Your task to perform on an android device: all mails in gmail Image 0: 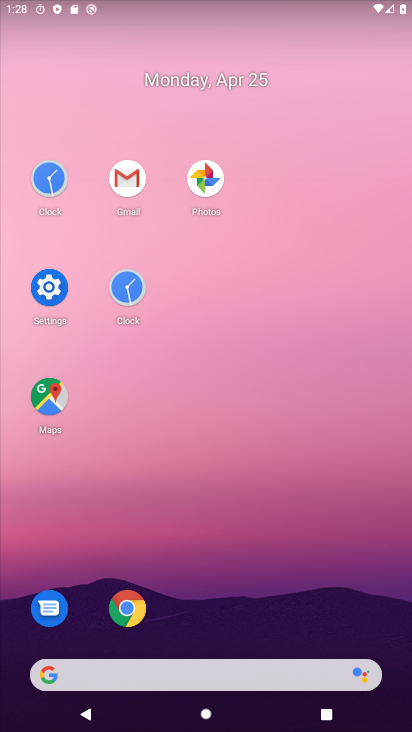
Step 0: click (123, 180)
Your task to perform on an android device: all mails in gmail Image 1: 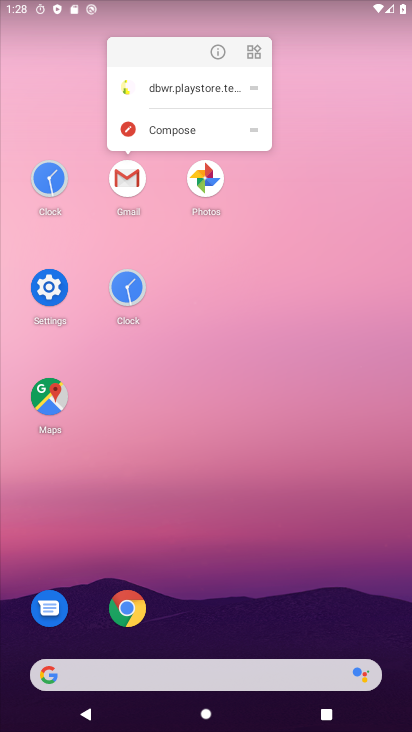
Step 1: click (123, 180)
Your task to perform on an android device: all mails in gmail Image 2: 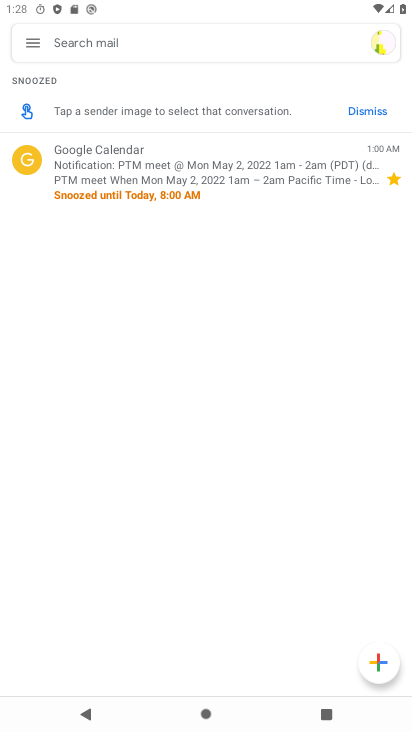
Step 2: click (33, 38)
Your task to perform on an android device: all mails in gmail Image 3: 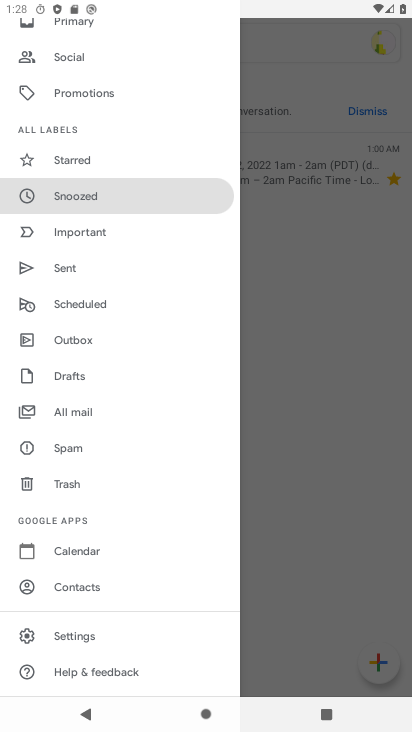
Step 3: click (129, 403)
Your task to perform on an android device: all mails in gmail Image 4: 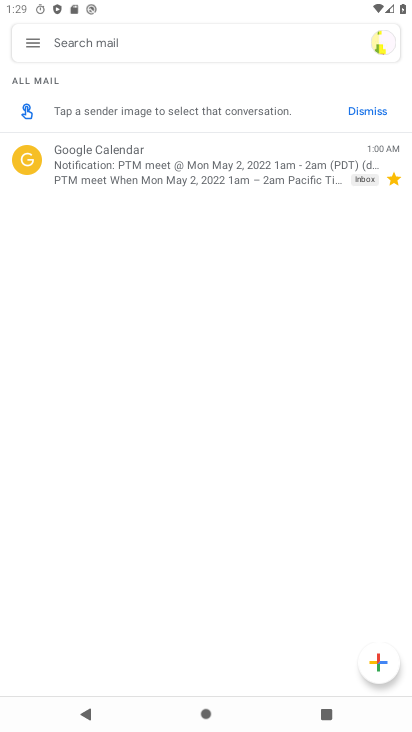
Step 4: task complete